Your task to perform on an android device: toggle show notifications on the lock screen Image 0: 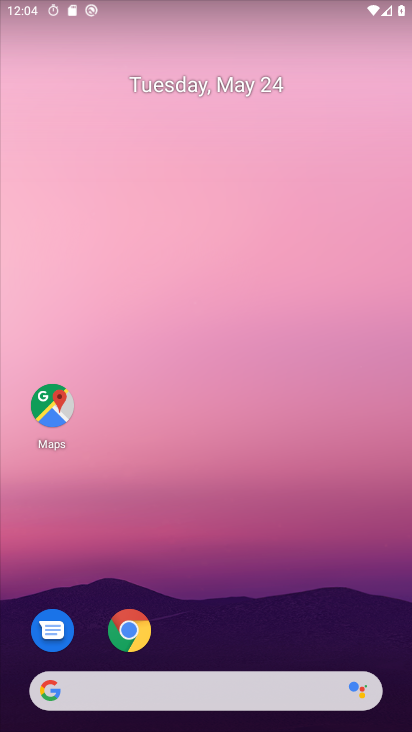
Step 0: drag from (213, 626) to (292, 12)
Your task to perform on an android device: toggle show notifications on the lock screen Image 1: 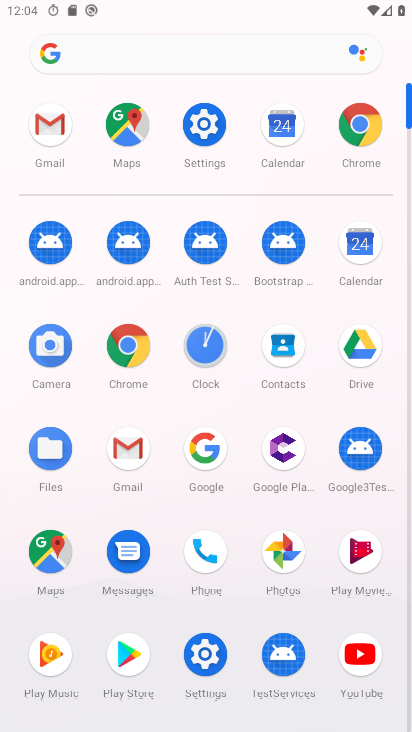
Step 1: click (199, 138)
Your task to perform on an android device: toggle show notifications on the lock screen Image 2: 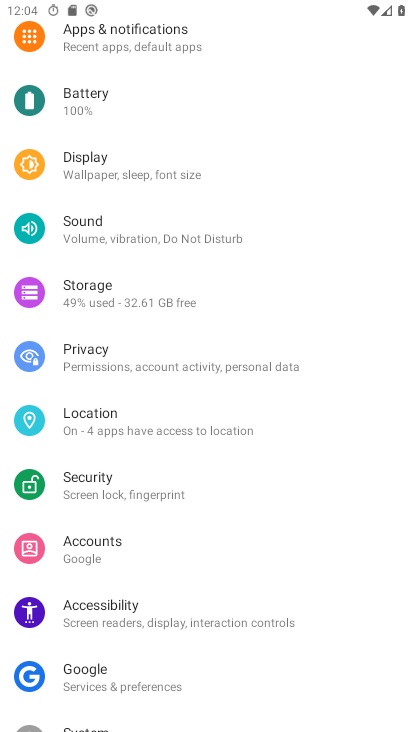
Step 2: drag from (135, 142) to (132, 363)
Your task to perform on an android device: toggle show notifications on the lock screen Image 3: 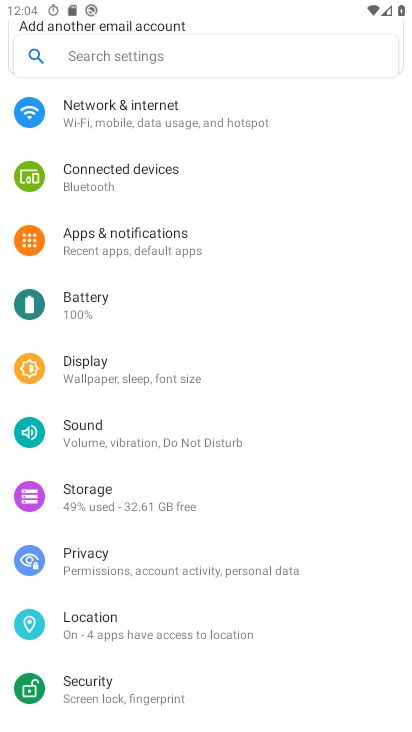
Step 3: click (163, 248)
Your task to perform on an android device: toggle show notifications on the lock screen Image 4: 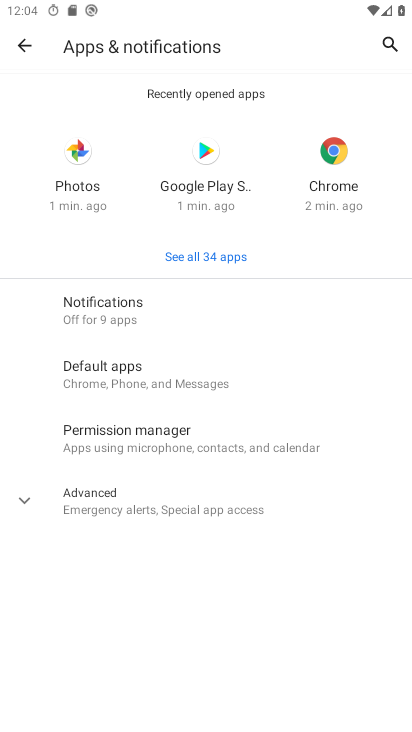
Step 4: click (127, 322)
Your task to perform on an android device: toggle show notifications on the lock screen Image 5: 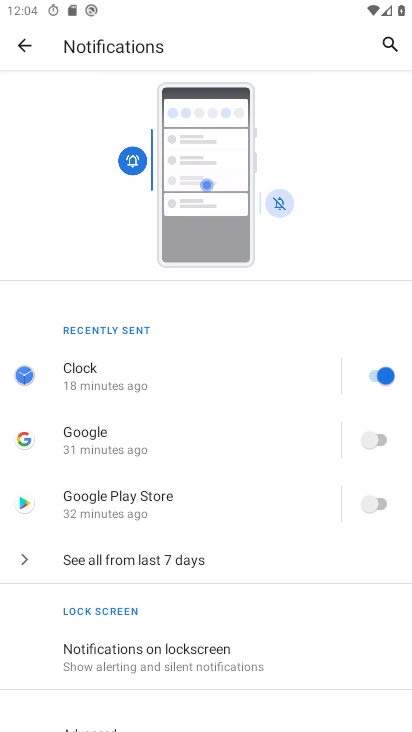
Step 5: click (158, 662)
Your task to perform on an android device: toggle show notifications on the lock screen Image 6: 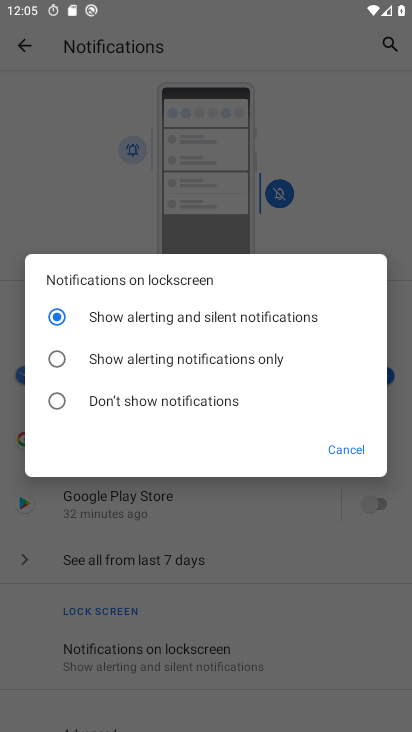
Step 6: click (115, 395)
Your task to perform on an android device: toggle show notifications on the lock screen Image 7: 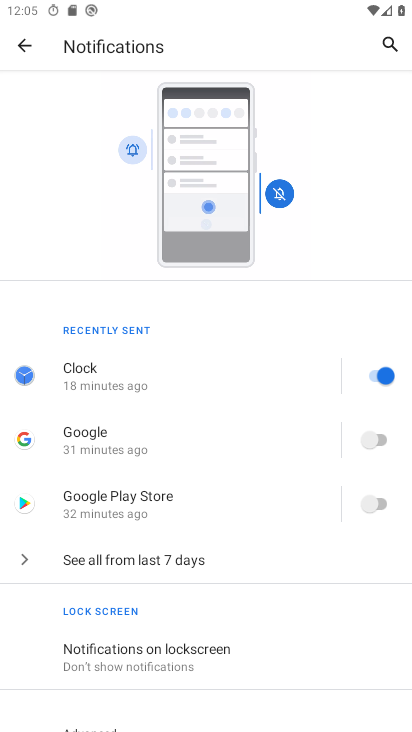
Step 7: task complete